Your task to perform on an android device: When is my next meeting? Image 0: 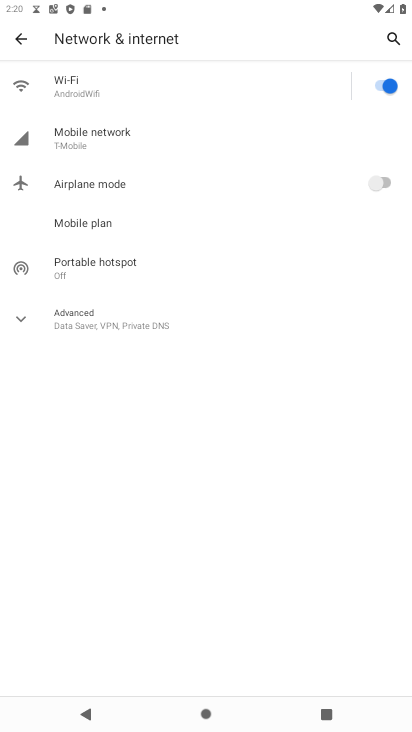
Step 0: press home button
Your task to perform on an android device: When is my next meeting? Image 1: 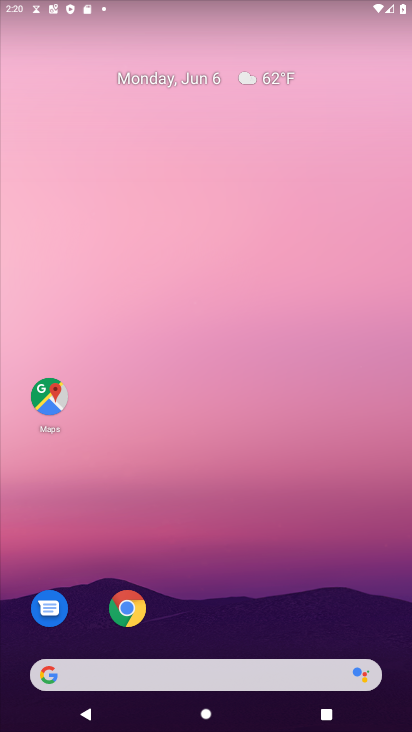
Step 1: drag from (273, 572) to (344, 86)
Your task to perform on an android device: When is my next meeting? Image 2: 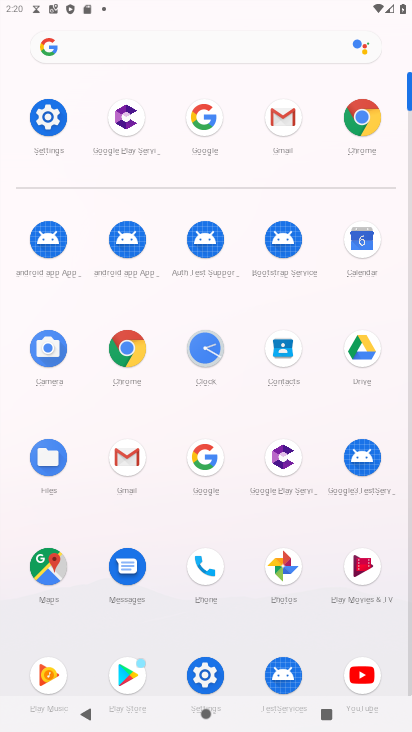
Step 2: click (373, 245)
Your task to perform on an android device: When is my next meeting? Image 3: 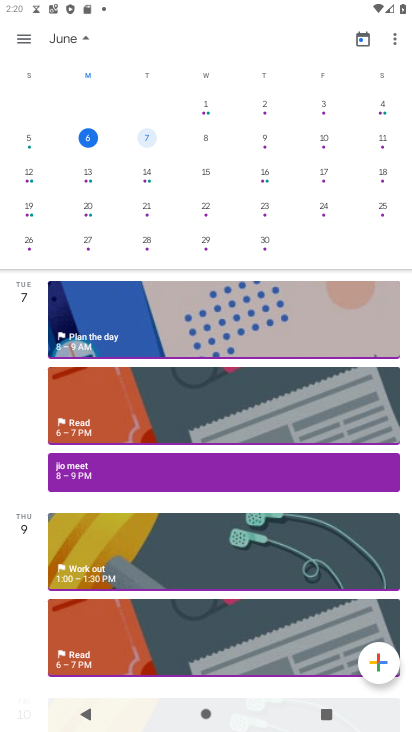
Step 3: click (145, 133)
Your task to perform on an android device: When is my next meeting? Image 4: 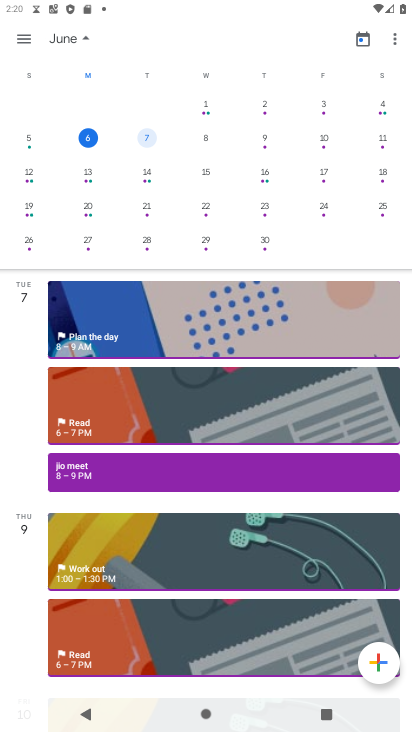
Step 4: task complete